Your task to perform on an android device: Open Chrome and go to settings Image 0: 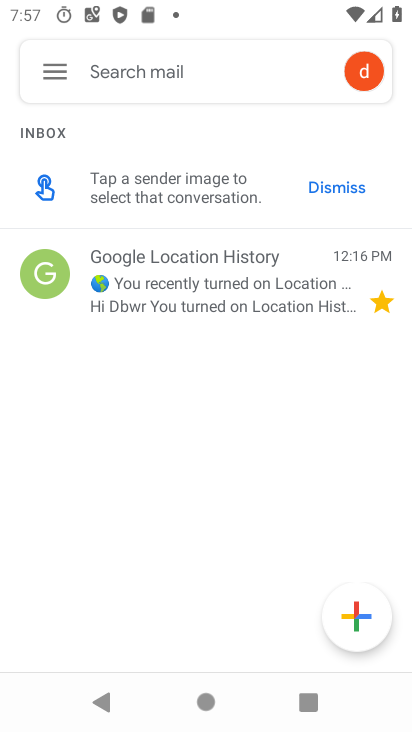
Step 0: press home button
Your task to perform on an android device: Open Chrome and go to settings Image 1: 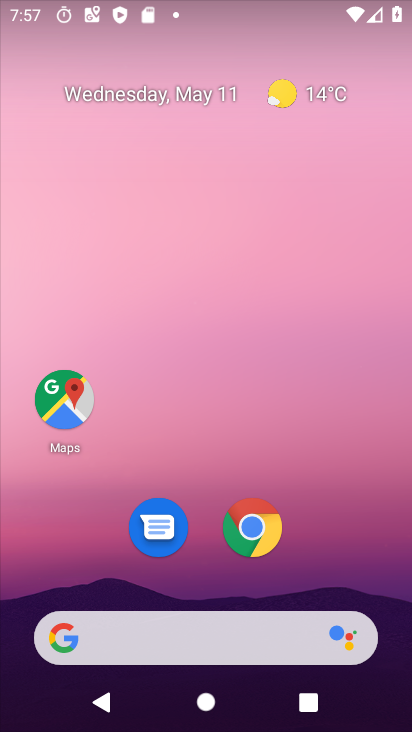
Step 1: click (265, 529)
Your task to perform on an android device: Open Chrome and go to settings Image 2: 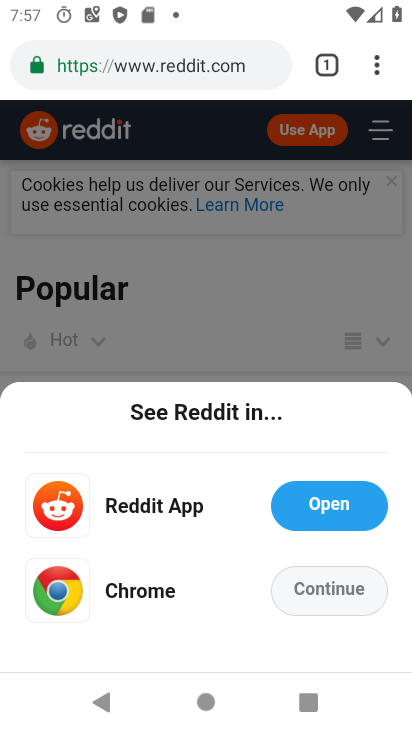
Step 2: click (377, 75)
Your task to perform on an android device: Open Chrome and go to settings Image 3: 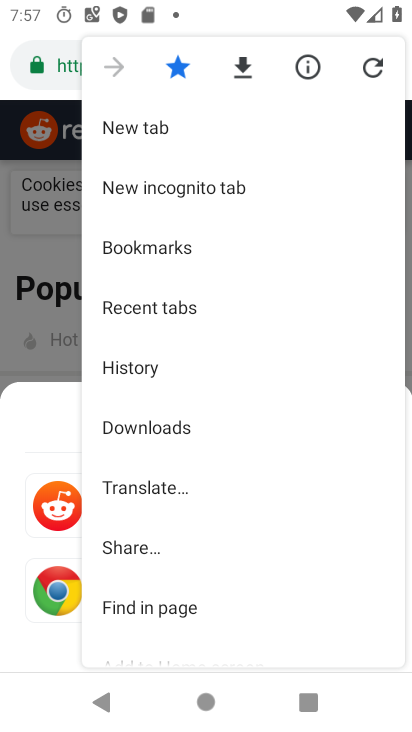
Step 3: drag from (169, 576) to (203, 276)
Your task to perform on an android device: Open Chrome and go to settings Image 4: 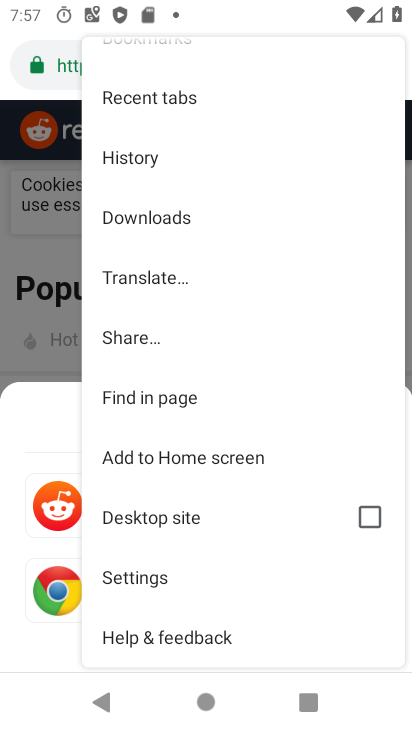
Step 4: click (169, 563)
Your task to perform on an android device: Open Chrome and go to settings Image 5: 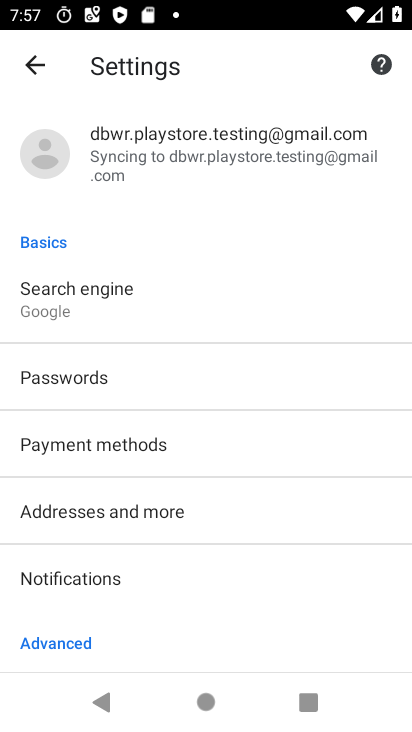
Step 5: task complete